Your task to perform on an android device: toggle wifi Image 0: 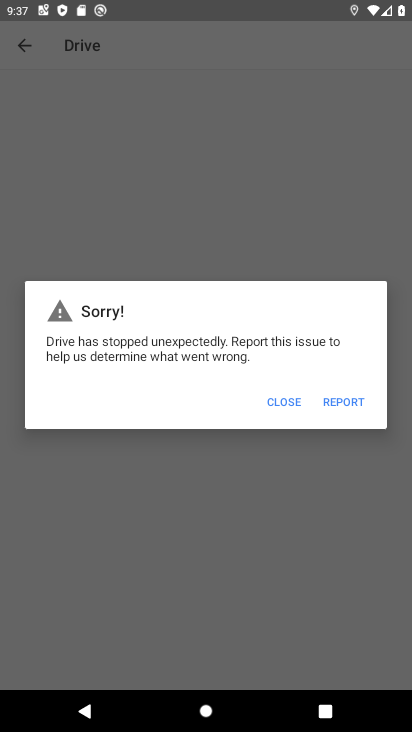
Step 0: press back button
Your task to perform on an android device: toggle wifi Image 1: 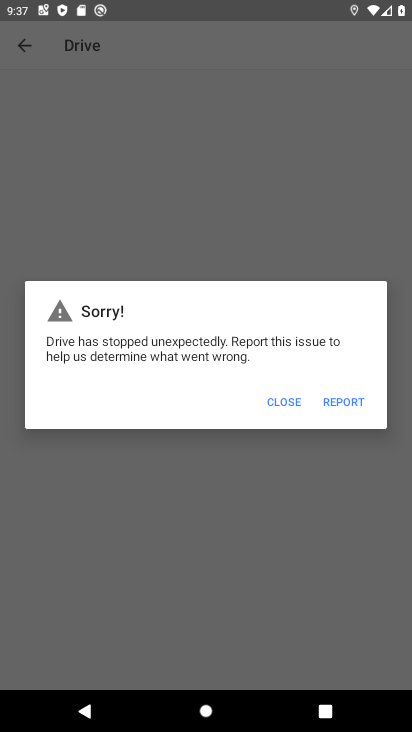
Step 1: press home button
Your task to perform on an android device: toggle wifi Image 2: 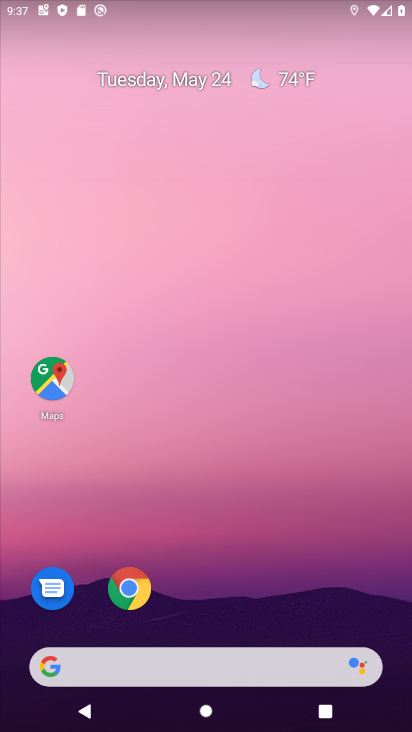
Step 2: drag from (178, 561) to (98, 20)
Your task to perform on an android device: toggle wifi Image 3: 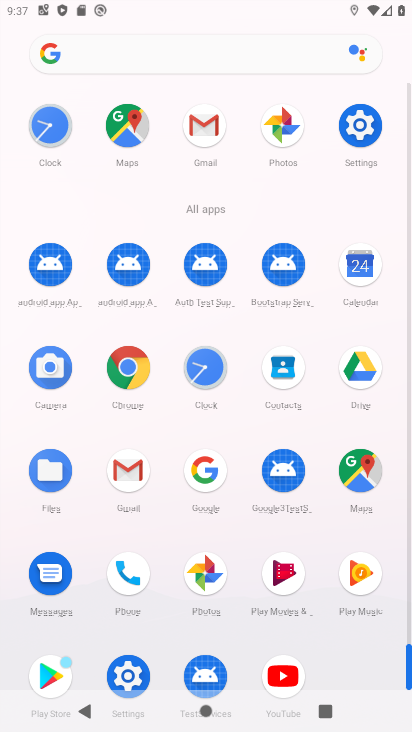
Step 3: drag from (13, 559) to (8, 290)
Your task to perform on an android device: toggle wifi Image 4: 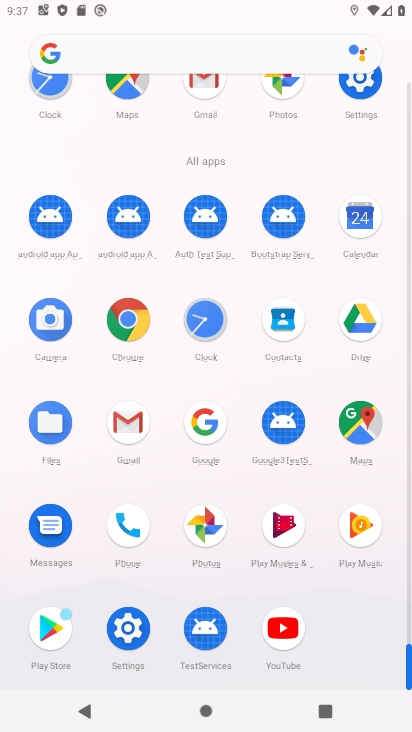
Step 4: click (129, 624)
Your task to perform on an android device: toggle wifi Image 5: 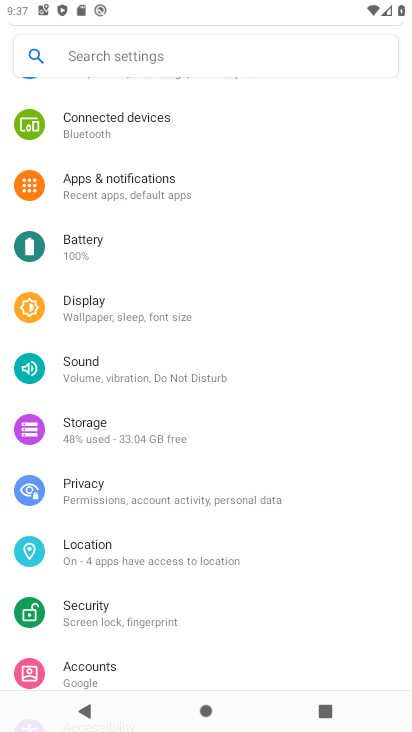
Step 5: drag from (186, 166) to (154, 584)
Your task to perform on an android device: toggle wifi Image 6: 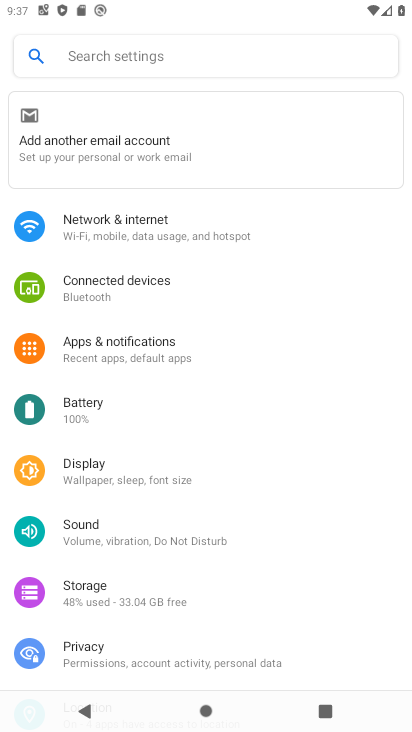
Step 6: click (134, 223)
Your task to perform on an android device: toggle wifi Image 7: 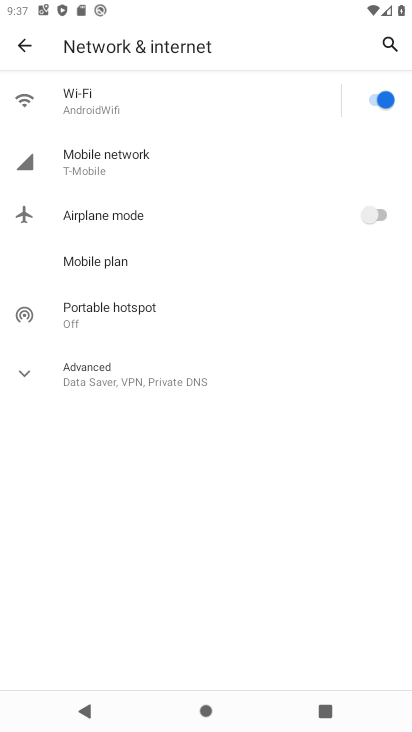
Step 7: click (389, 98)
Your task to perform on an android device: toggle wifi Image 8: 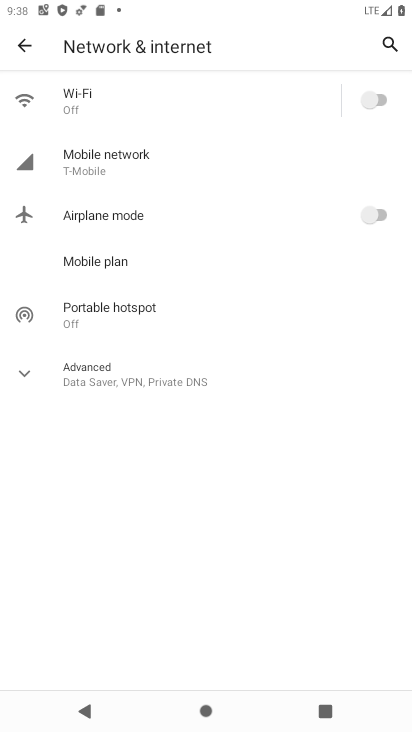
Step 8: click (18, 369)
Your task to perform on an android device: toggle wifi Image 9: 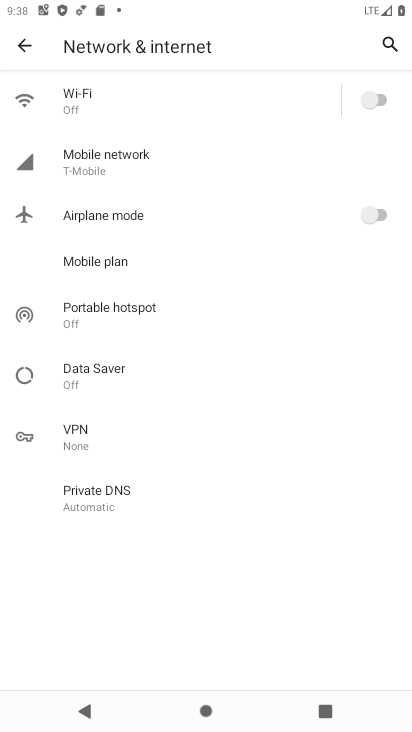
Step 9: task complete